Your task to perform on an android device: uninstall "Google Play Music" Image 0: 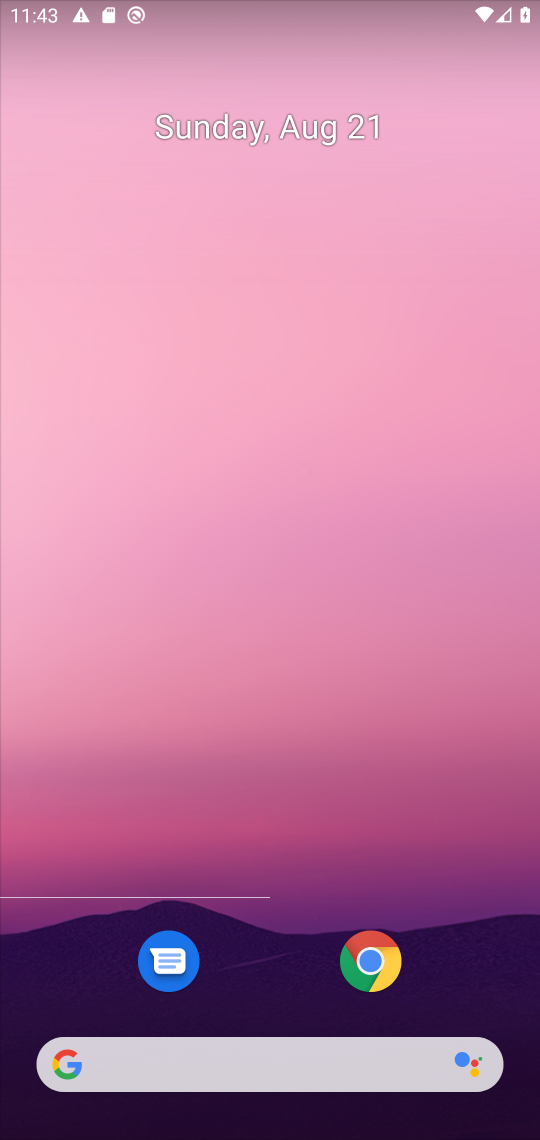
Step 0: press home button
Your task to perform on an android device: uninstall "Google Play Music" Image 1: 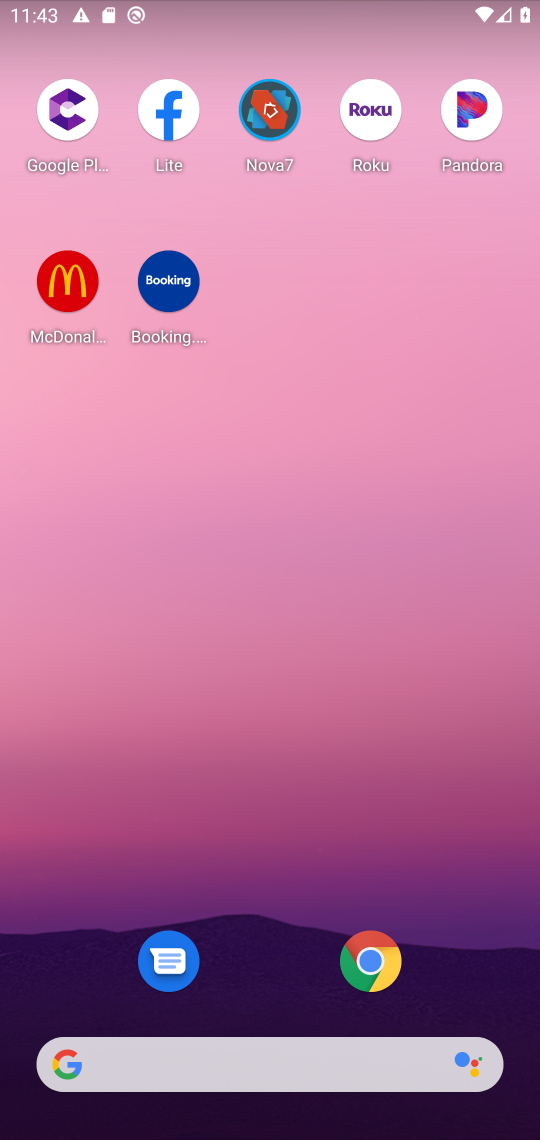
Step 1: drag from (476, 787) to (460, 174)
Your task to perform on an android device: uninstall "Google Play Music" Image 2: 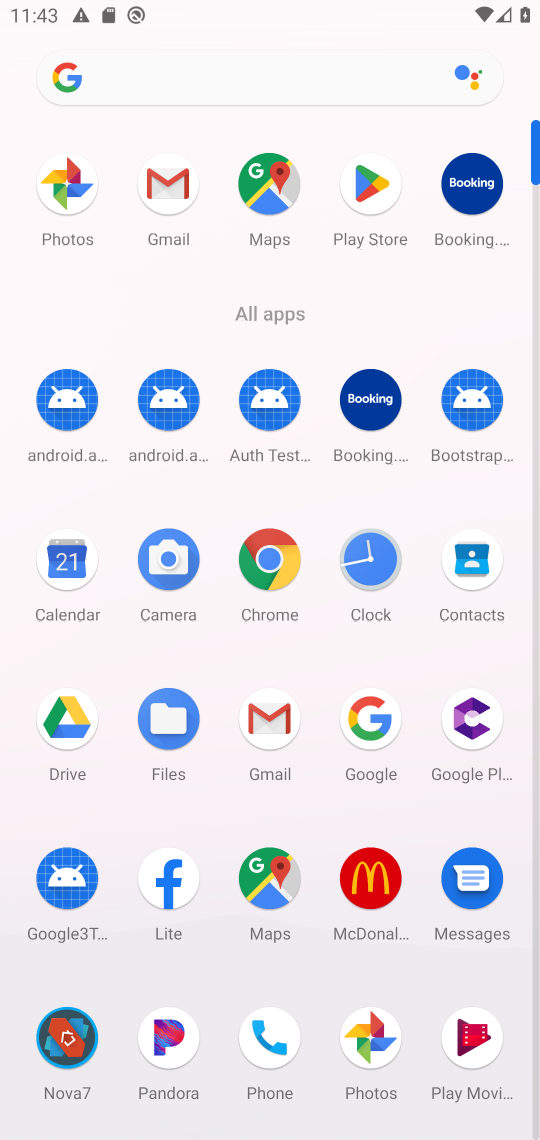
Step 2: click (370, 177)
Your task to perform on an android device: uninstall "Google Play Music" Image 3: 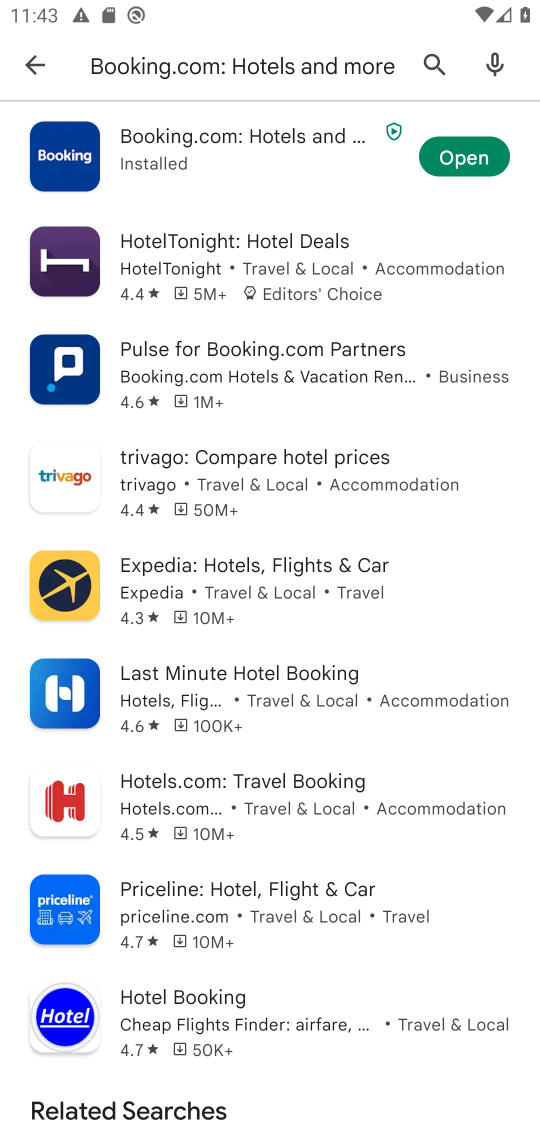
Step 3: press back button
Your task to perform on an android device: uninstall "Google Play Music" Image 4: 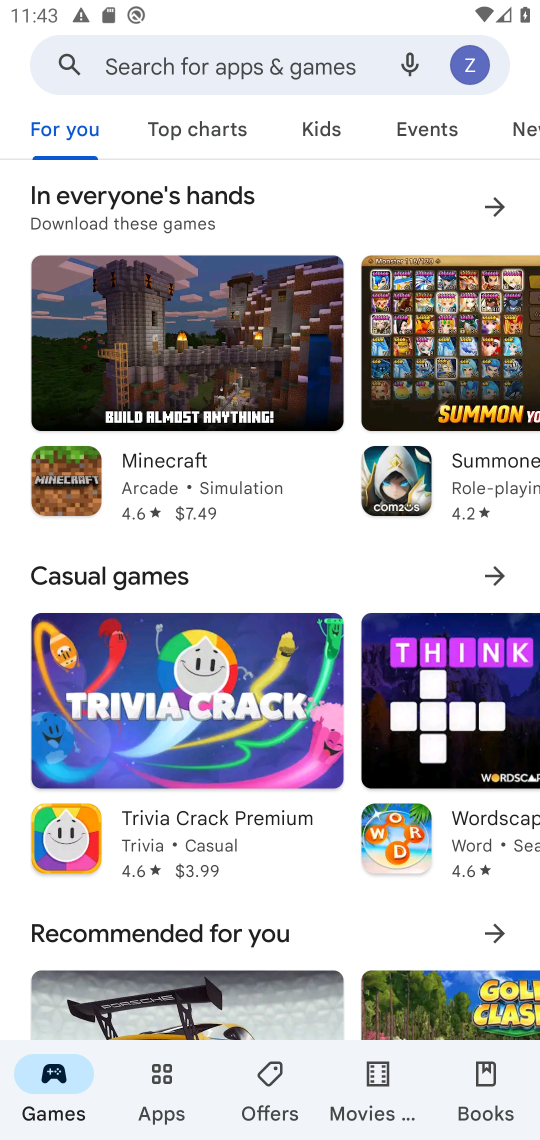
Step 4: click (333, 69)
Your task to perform on an android device: uninstall "Google Play Music" Image 5: 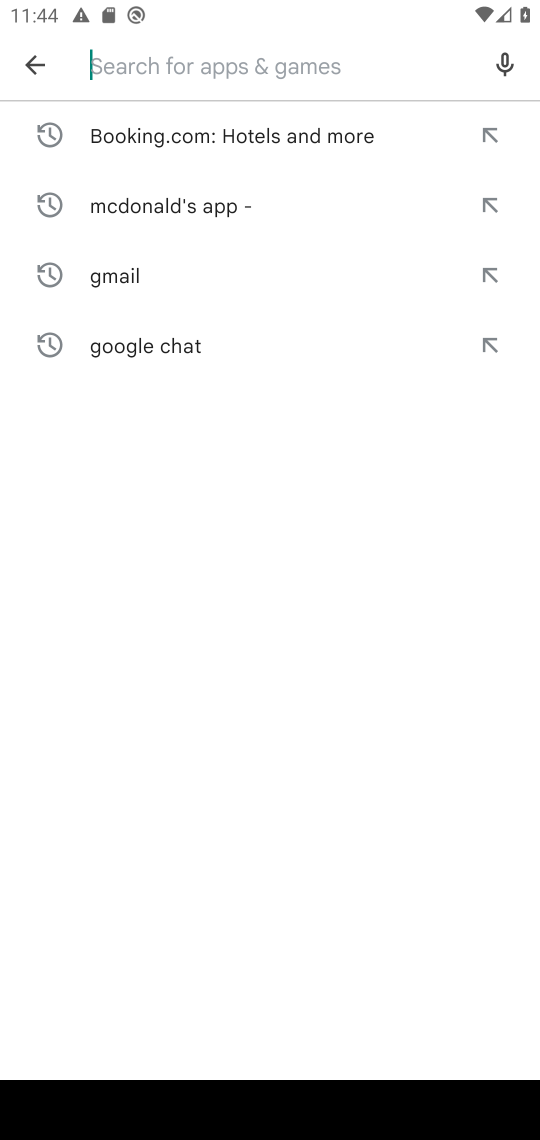
Step 5: type "Google Play Music"
Your task to perform on an android device: uninstall "Google Play Music" Image 6: 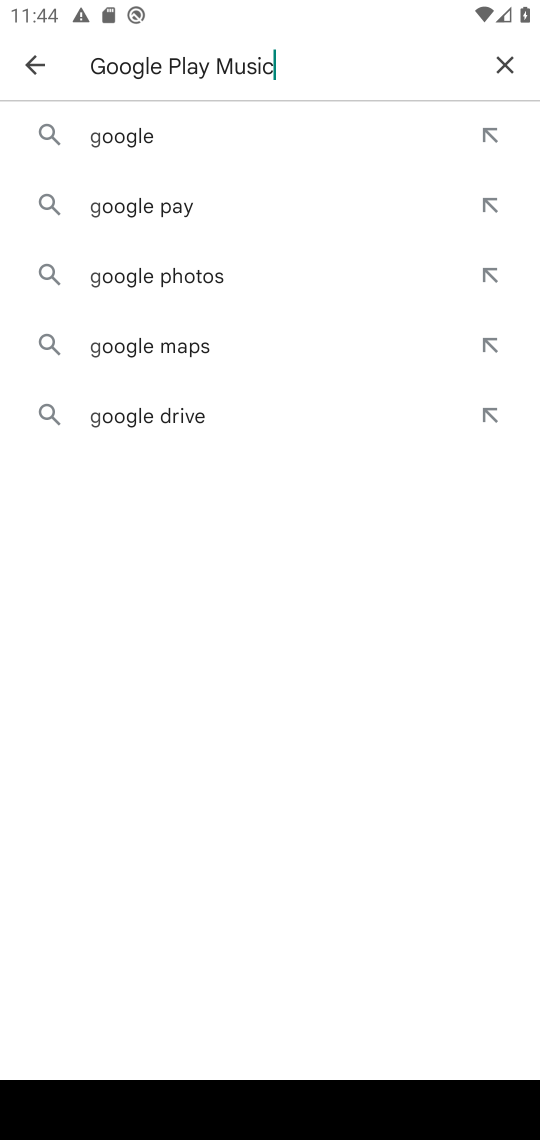
Step 6: press enter
Your task to perform on an android device: uninstall "Google Play Music" Image 7: 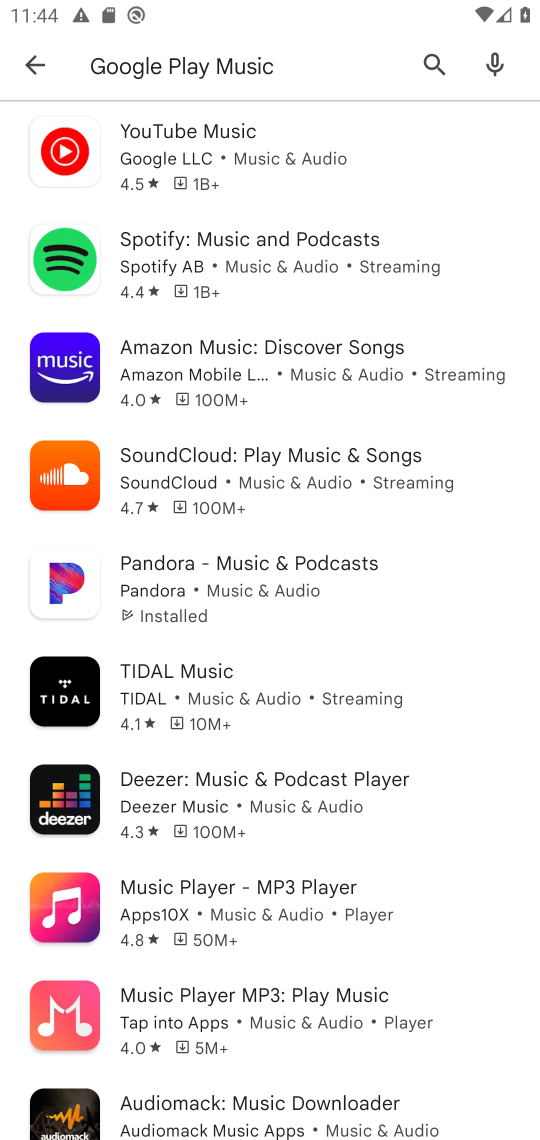
Step 7: click (221, 146)
Your task to perform on an android device: uninstall "Google Play Music" Image 8: 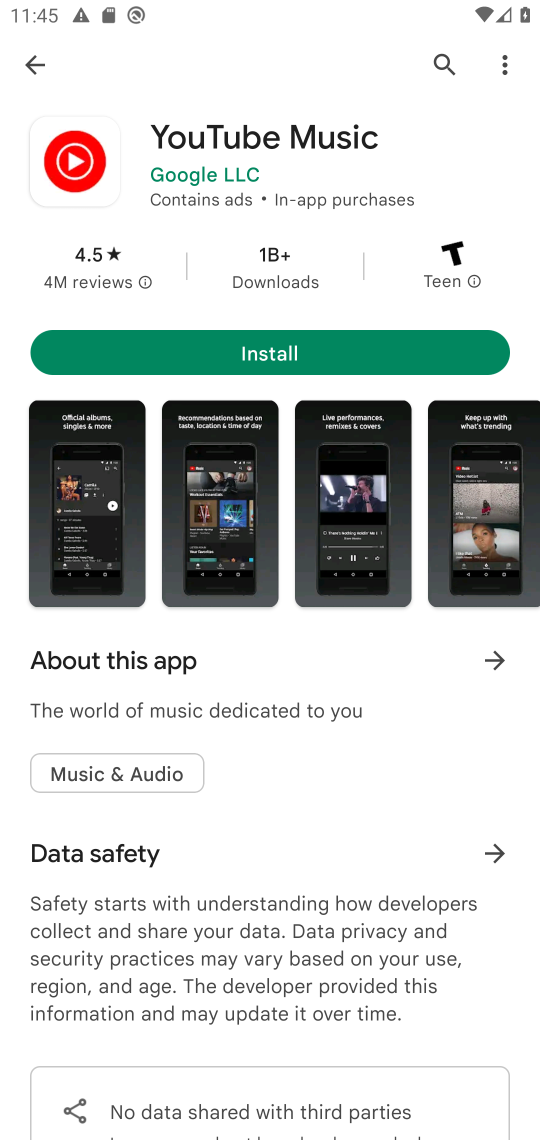
Step 8: task complete